Your task to perform on an android device: Open the calendar and show me this week's events? Image 0: 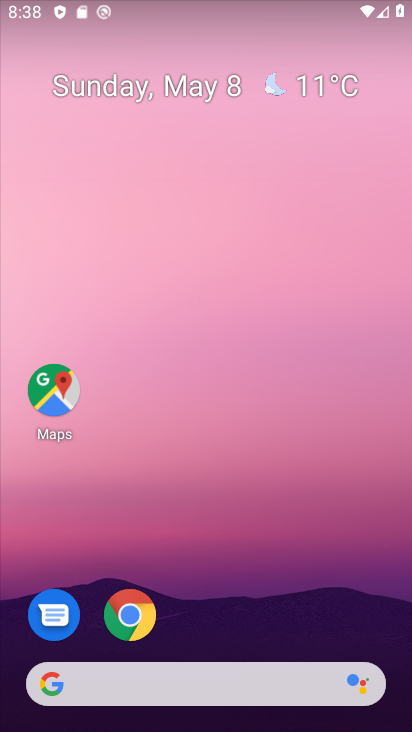
Step 0: drag from (350, 589) to (357, 201)
Your task to perform on an android device: Open the calendar and show me this week's events? Image 1: 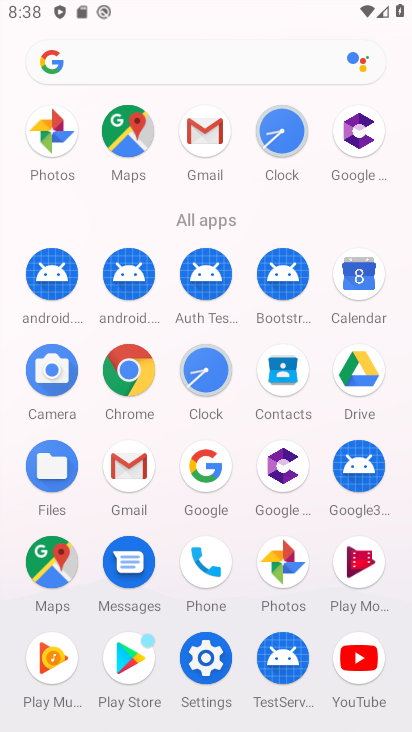
Step 1: click (360, 266)
Your task to perform on an android device: Open the calendar and show me this week's events? Image 2: 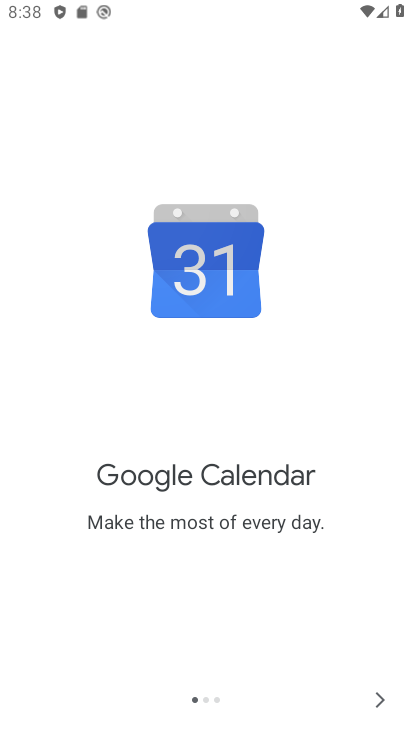
Step 2: click (381, 700)
Your task to perform on an android device: Open the calendar and show me this week's events? Image 3: 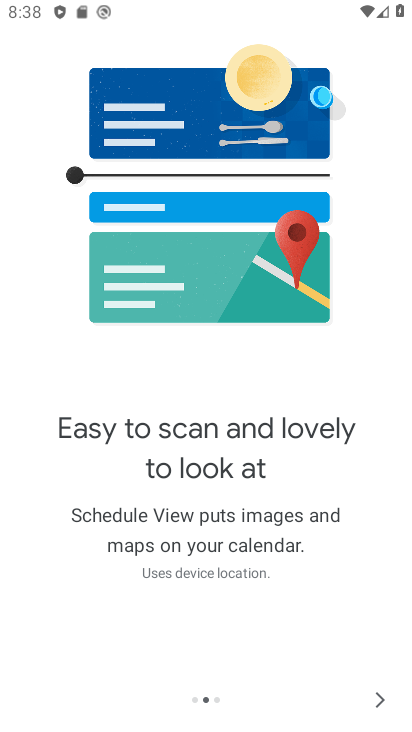
Step 3: click (377, 696)
Your task to perform on an android device: Open the calendar and show me this week's events? Image 4: 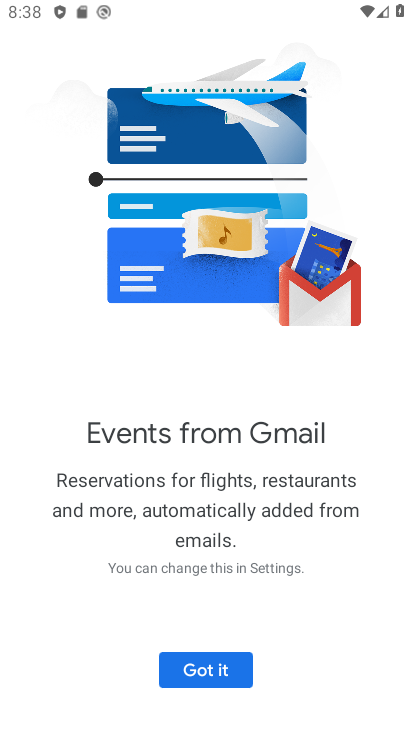
Step 4: click (201, 683)
Your task to perform on an android device: Open the calendar and show me this week's events? Image 5: 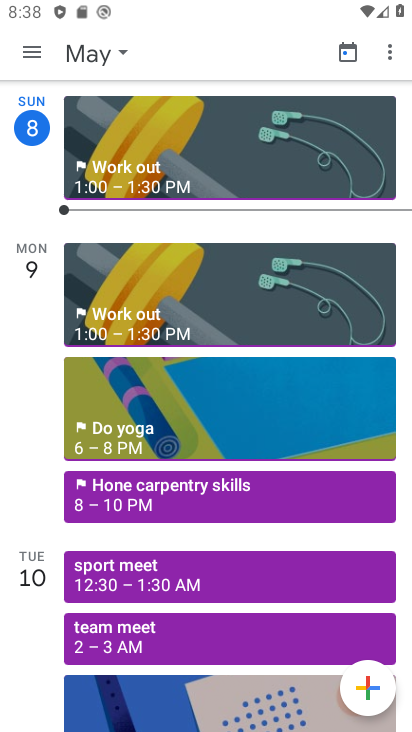
Step 5: click (108, 55)
Your task to perform on an android device: Open the calendar and show me this week's events? Image 6: 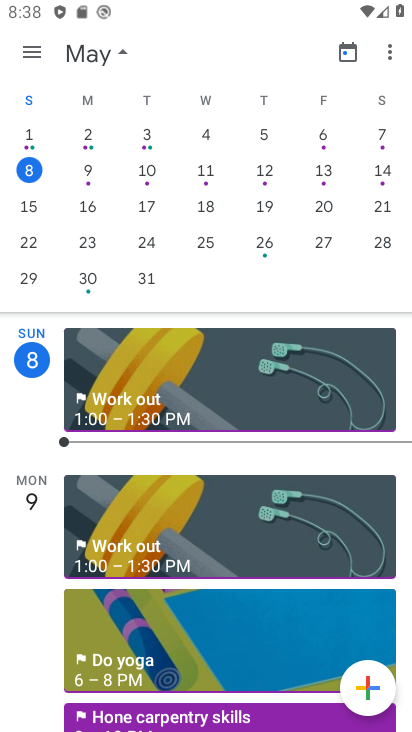
Step 6: drag from (51, 158) to (308, 104)
Your task to perform on an android device: Open the calendar and show me this week's events? Image 7: 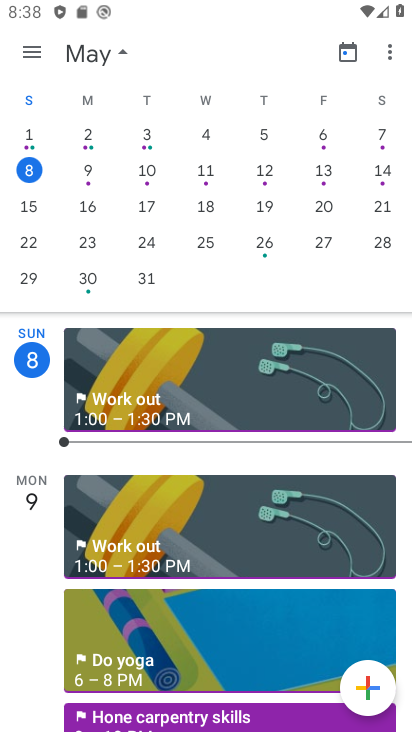
Step 7: drag from (38, 207) to (365, 183)
Your task to perform on an android device: Open the calendar and show me this week's events? Image 8: 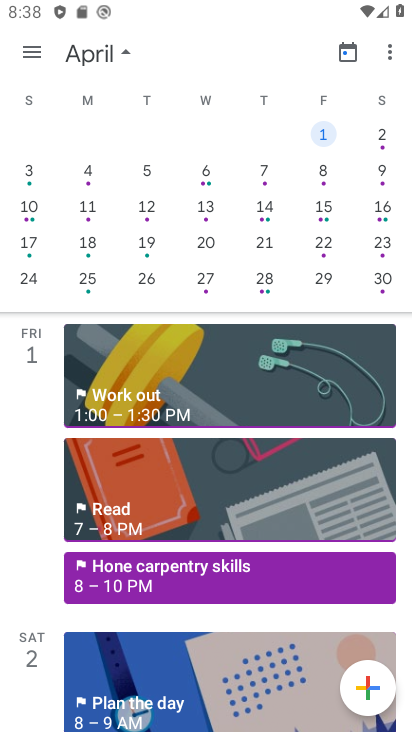
Step 8: drag from (344, 179) to (48, 217)
Your task to perform on an android device: Open the calendar and show me this week's events? Image 9: 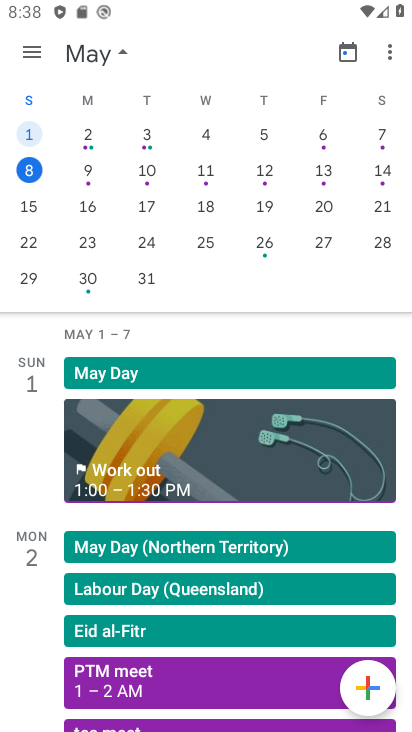
Step 9: click (89, 169)
Your task to perform on an android device: Open the calendar and show me this week's events? Image 10: 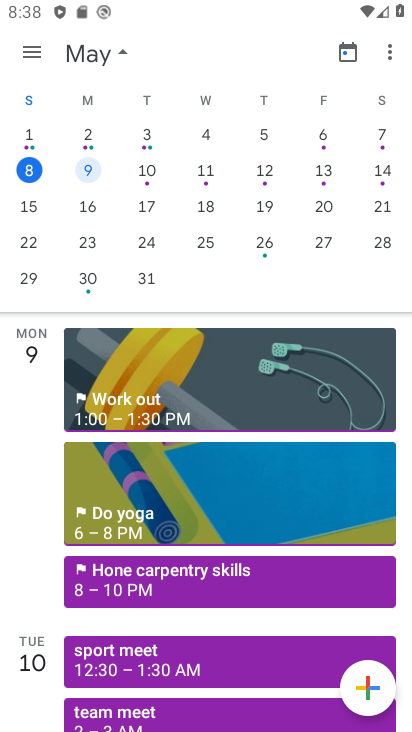
Step 10: task complete